Your task to perform on an android device: see sites visited before in the chrome app Image 0: 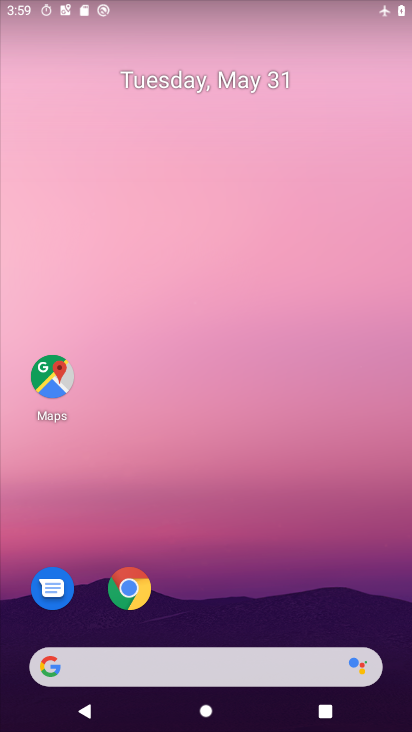
Step 0: drag from (225, 677) to (222, 208)
Your task to perform on an android device: see sites visited before in the chrome app Image 1: 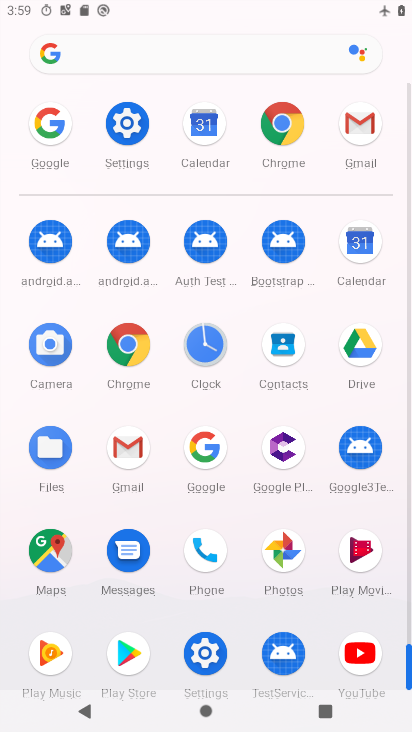
Step 1: click (125, 360)
Your task to perform on an android device: see sites visited before in the chrome app Image 2: 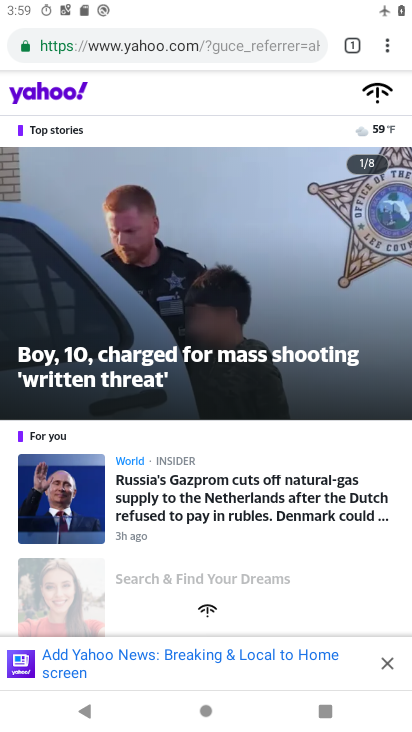
Step 2: click (382, 42)
Your task to perform on an android device: see sites visited before in the chrome app Image 3: 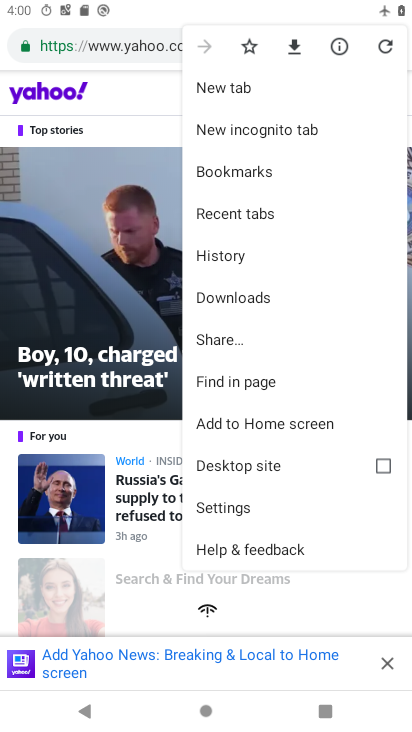
Step 3: click (238, 247)
Your task to perform on an android device: see sites visited before in the chrome app Image 4: 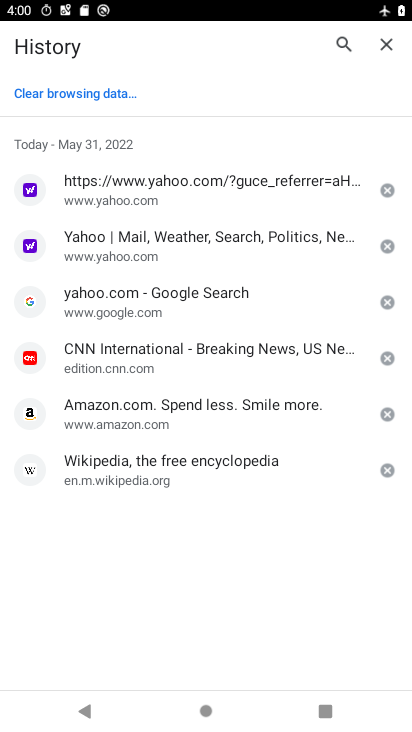
Step 4: task complete